Your task to perform on an android device: stop showing notifications on the lock screen Image 0: 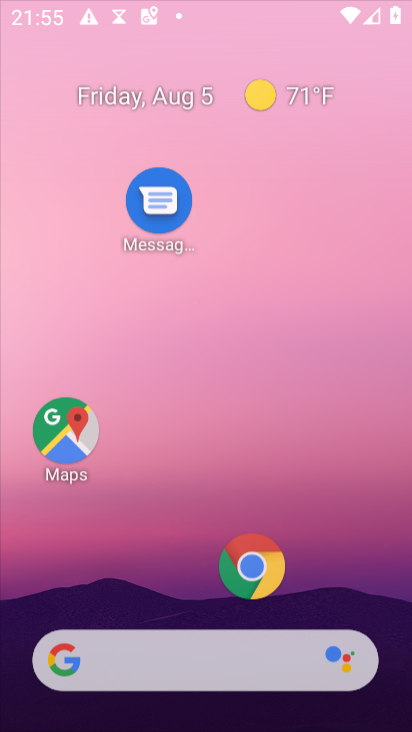
Step 0: press home button
Your task to perform on an android device: stop showing notifications on the lock screen Image 1: 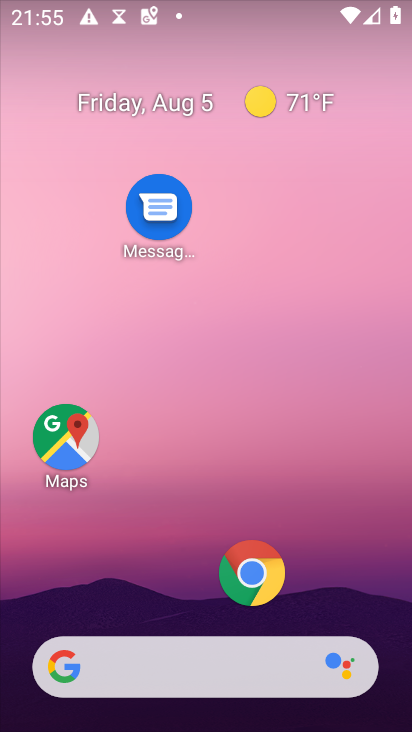
Step 1: drag from (207, 617) to (224, 64)
Your task to perform on an android device: stop showing notifications on the lock screen Image 2: 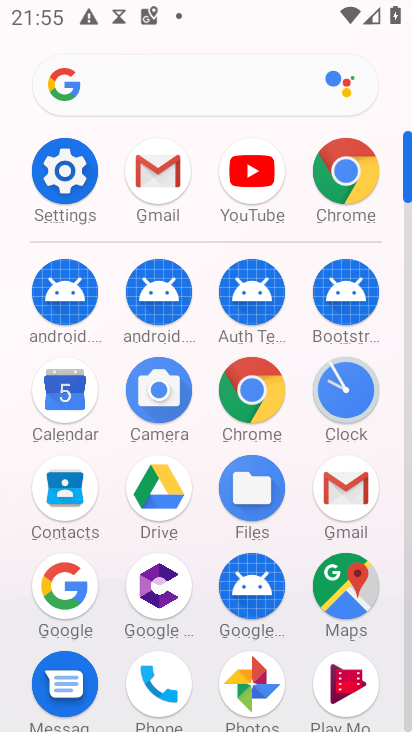
Step 2: click (61, 167)
Your task to perform on an android device: stop showing notifications on the lock screen Image 3: 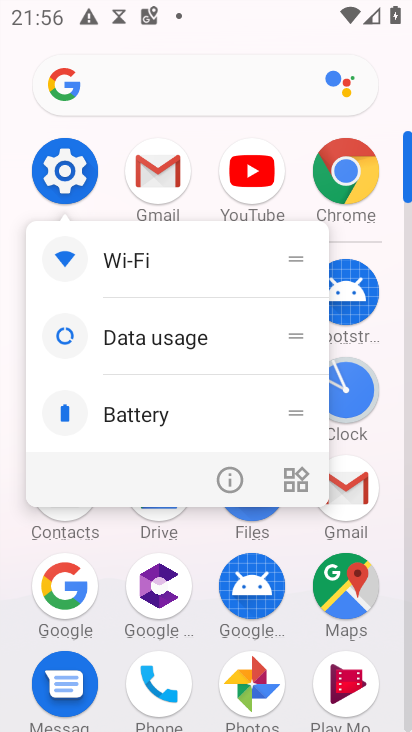
Step 3: click (59, 174)
Your task to perform on an android device: stop showing notifications on the lock screen Image 4: 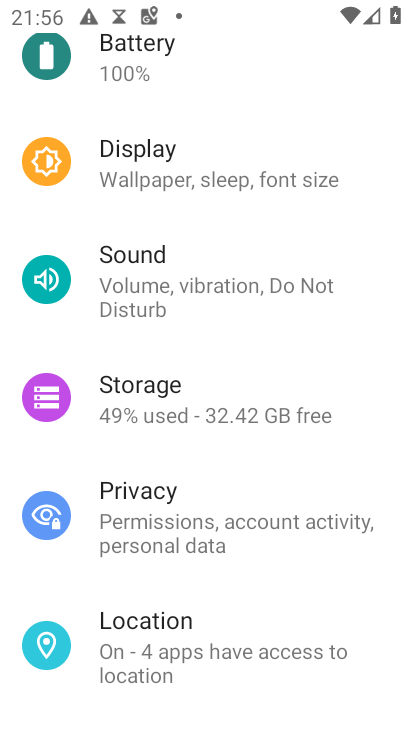
Step 4: drag from (139, 102) to (133, 686)
Your task to perform on an android device: stop showing notifications on the lock screen Image 5: 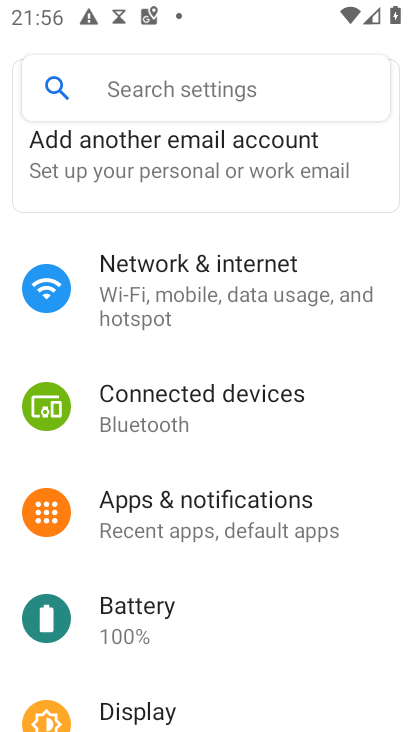
Step 5: click (219, 505)
Your task to perform on an android device: stop showing notifications on the lock screen Image 6: 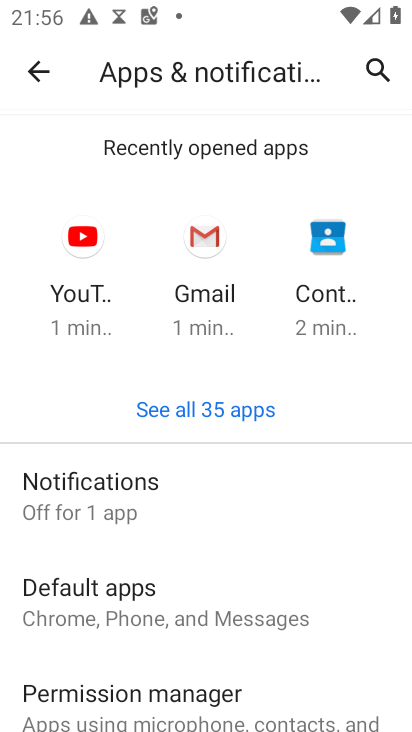
Step 6: click (172, 494)
Your task to perform on an android device: stop showing notifications on the lock screen Image 7: 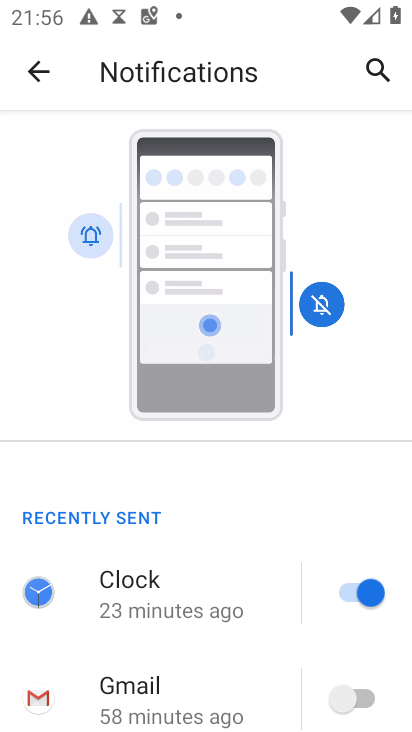
Step 7: drag from (200, 661) to (187, 96)
Your task to perform on an android device: stop showing notifications on the lock screen Image 8: 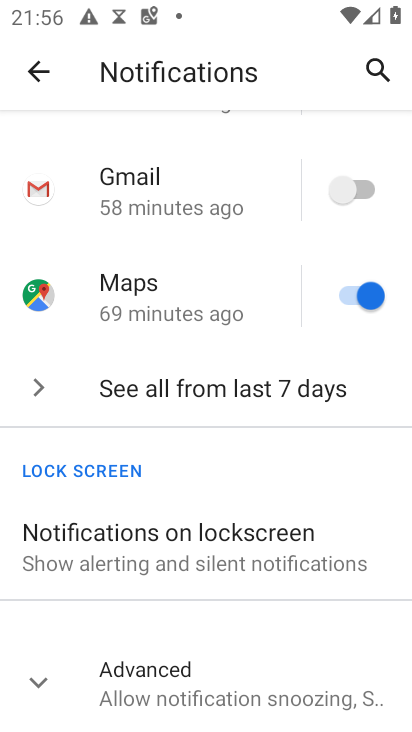
Step 8: click (176, 547)
Your task to perform on an android device: stop showing notifications on the lock screen Image 9: 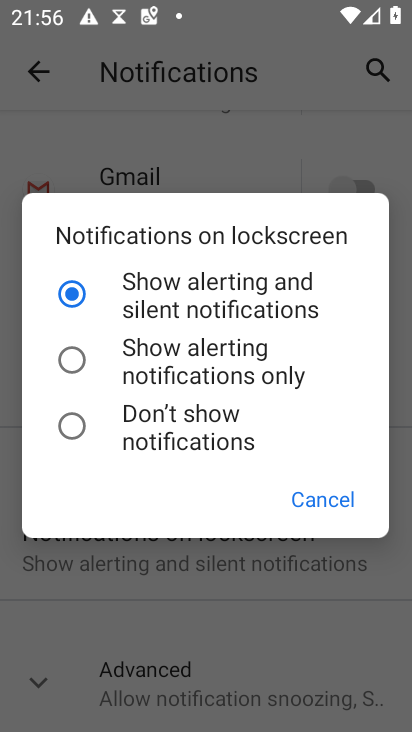
Step 9: click (73, 420)
Your task to perform on an android device: stop showing notifications on the lock screen Image 10: 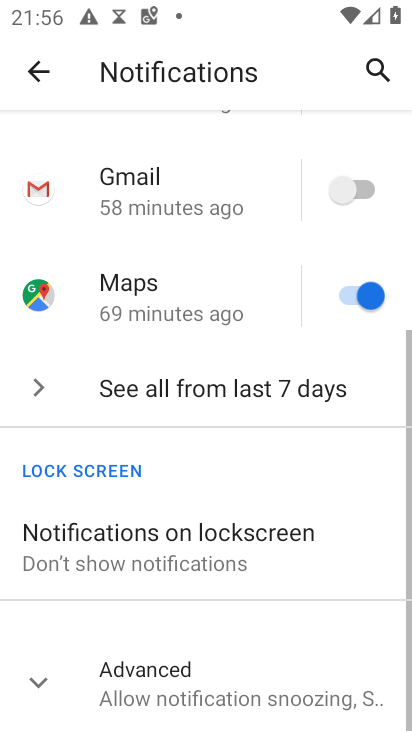
Step 10: task complete